Your task to perform on an android device: Open Google Maps and go to "Timeline" Image 0: 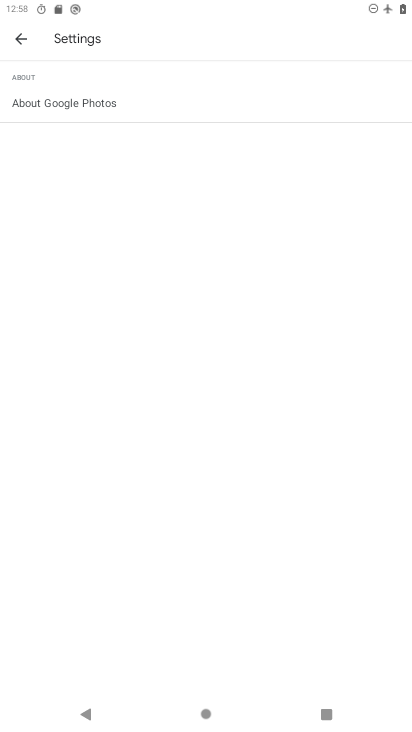
Step 0: press home button
Your task to perform on an android device: Open Google Maps and go to "Timeline" Image 1: 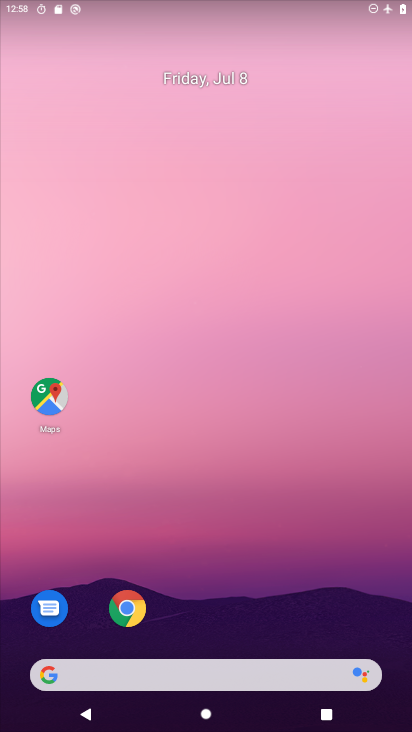
Step 1: drag from (229, 703) to (222, 103)
Your task to perform on an android device: Open Google Maps and go to "Timeline" Image 2: 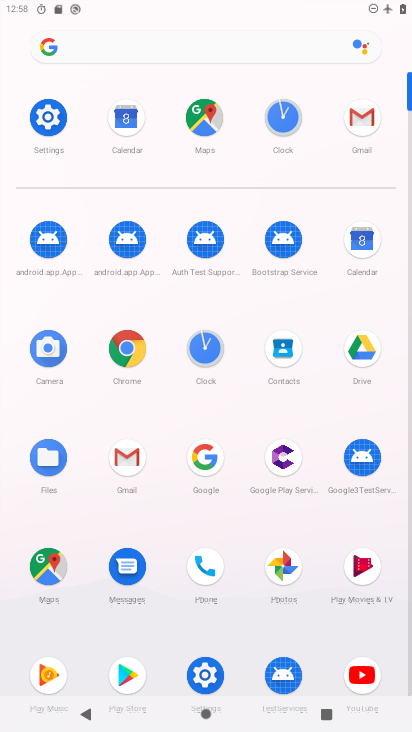
Step 2: click (54, 568)
Your task to perform on an android device: Open Google Maps and go to "Timeline" Image 3: 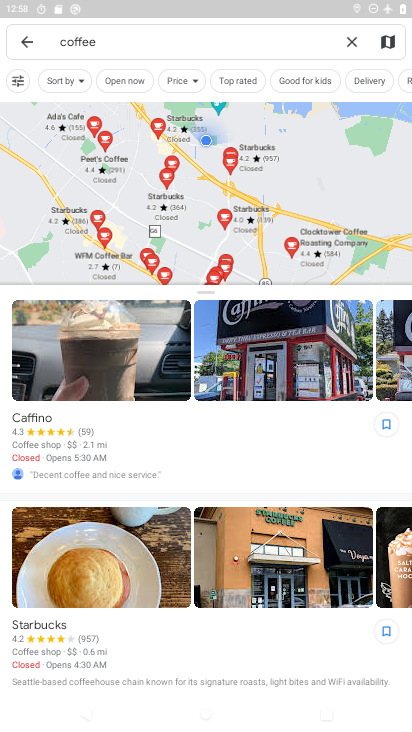
Step 3: click (27, 41)
Your task to perform on an android device: Open Google Maps and go to "Timeline" Image 4: 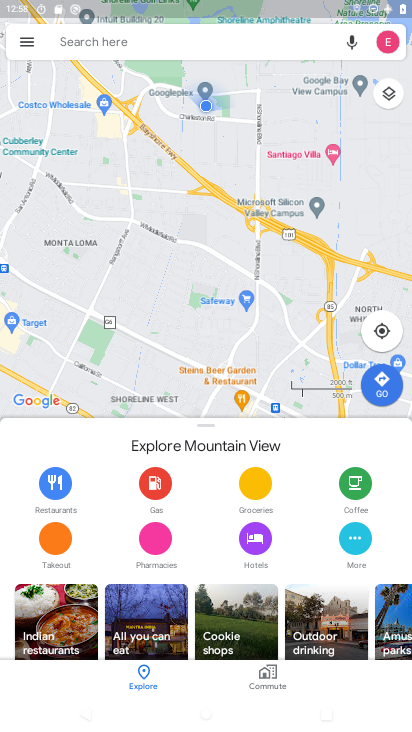
Step 4: click (27, 41)
Your task to perform on an android device: Open Google Maps and go to "Timeline" Image 5: 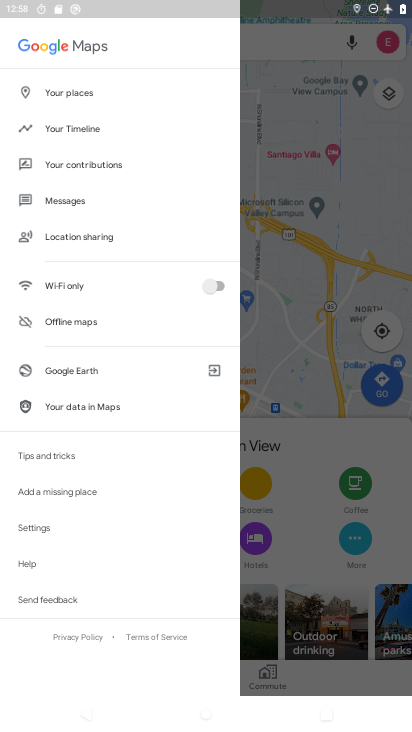
Step 5: click (70, 127)
Your task to perform on an android device: Open Google Maps and go to "Timeline" Image 6: 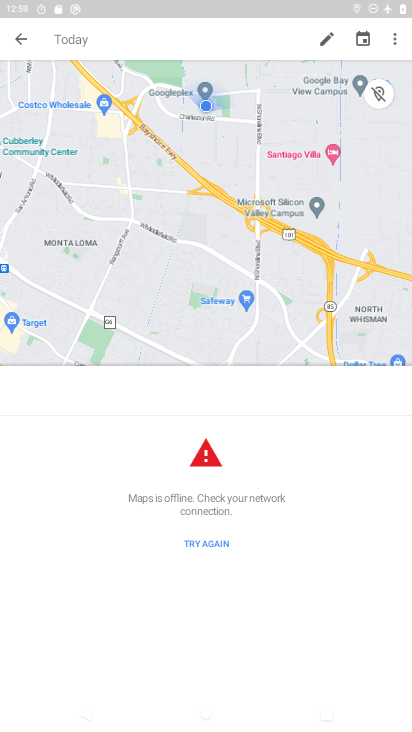
Step 6: task complete